Your task to perform on an android device: toggle wifi Image 0: 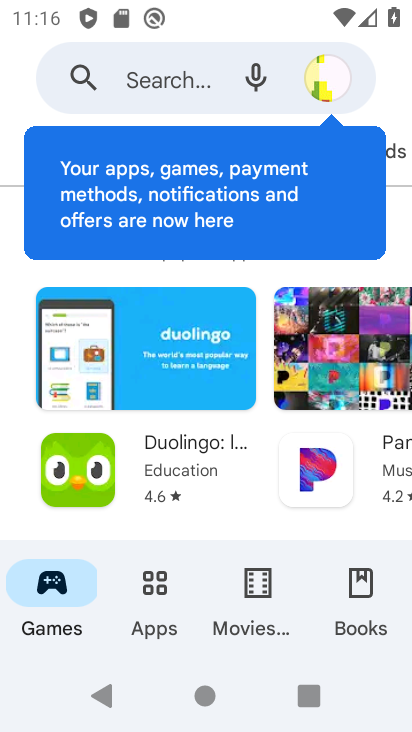
Step 0: click (403, 698)
Your task to perform on an android device: toggle wifi Image 1: 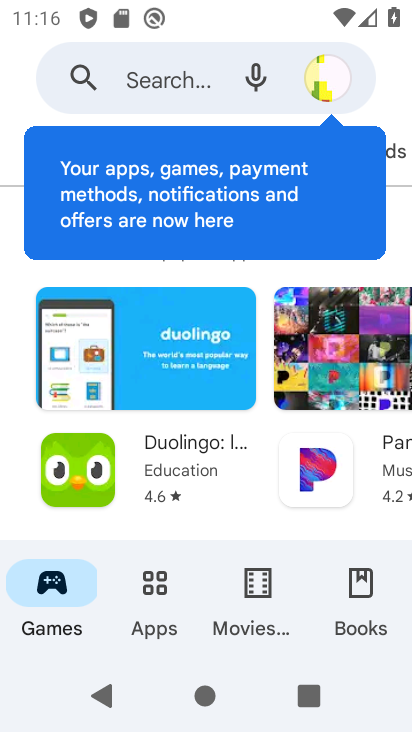
Step 1: press home button
Your task to perform on an android device: toggle wifi Image 2: 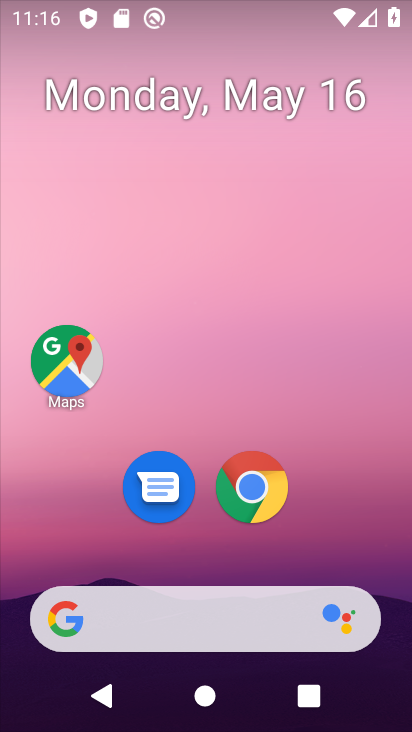
Step 2: drag from (240, 6) to (133, 498)
Your task to perform on an android device: toggle wifi Image 3: 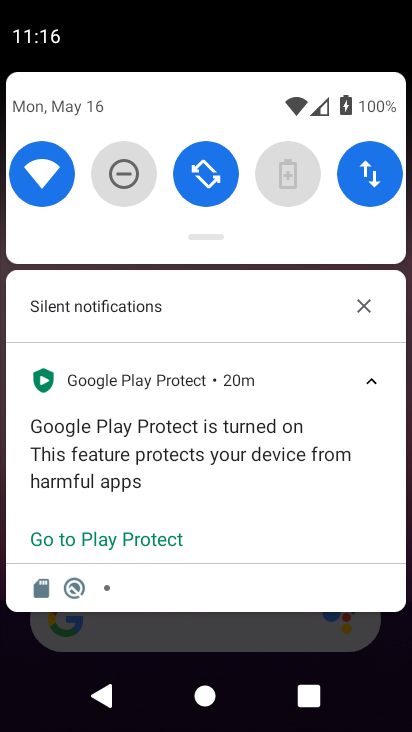
Step 3: click (31, 178)
Your task to perform on an android device: toggle wifi Image 4: 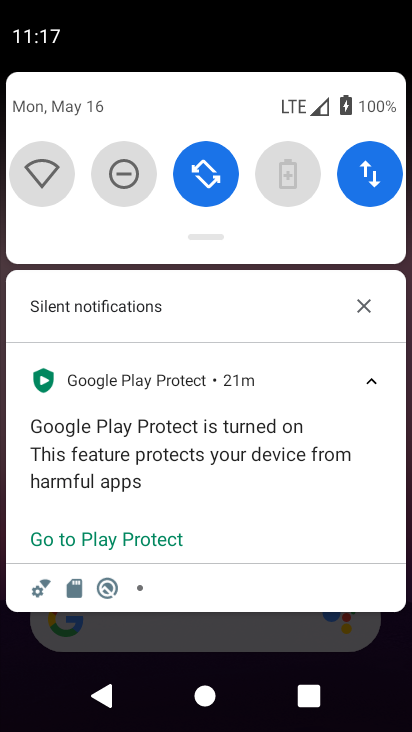
Step 4: task complete